Your task to perform on an android device: Toggle the flashlight Image 0: 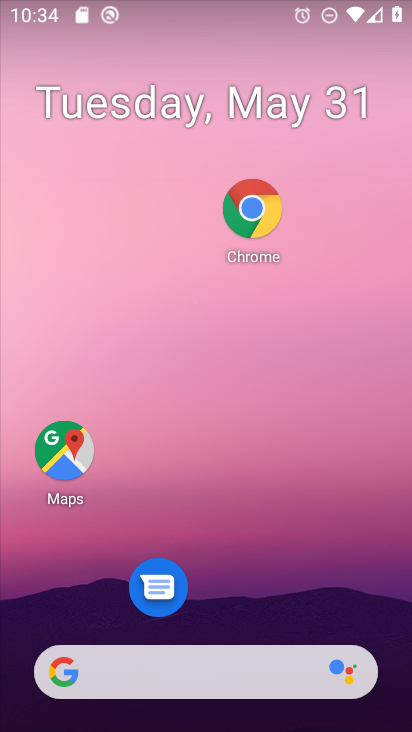
Step 0: press home button
Your task to perform on an android device: Toggle the flashlight Image 1: 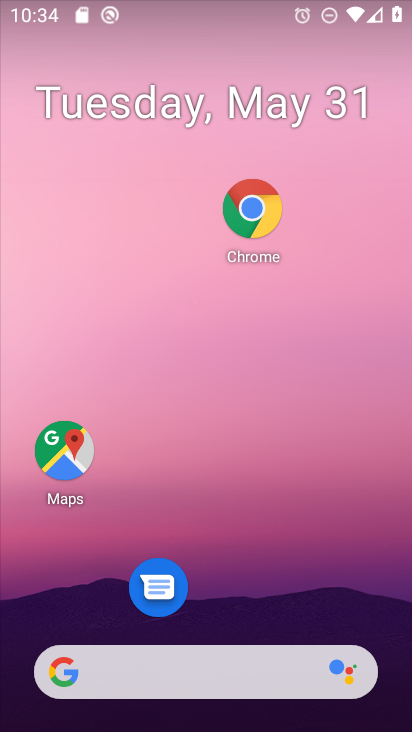
Step 1: drag from (222, 615) to (260, 28)
Your task to perform on an android device: Toggle the flashlight Image 2: 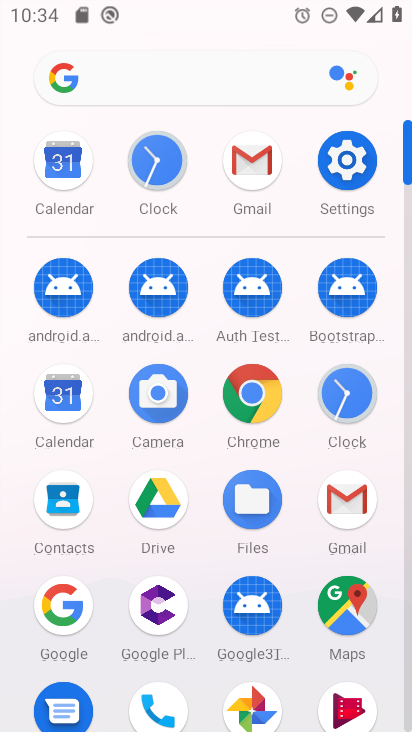
Step 2: click (347, 158)
Your task to perform on an android device: Toggle the flashlight Image 3: 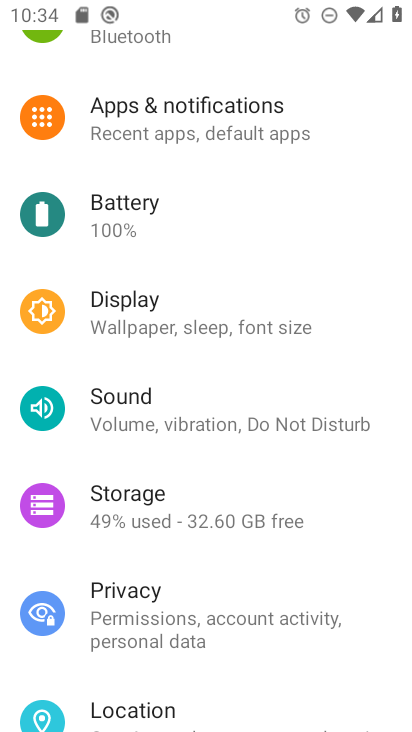
Step 3: drag from (167, 103) to (166, 544)
Your task to perform on an android device: Toggle the flashlight Image 4: 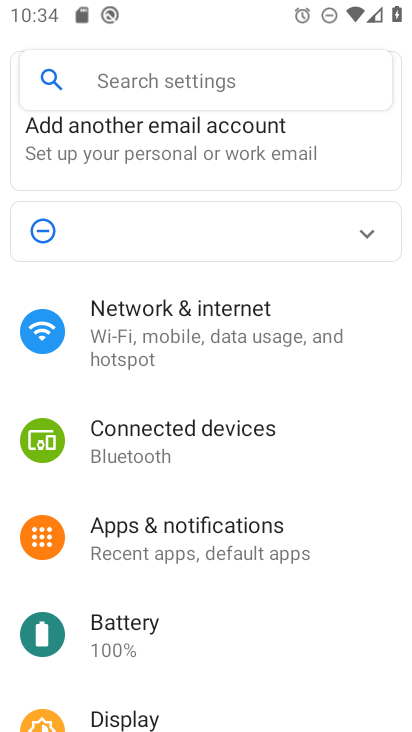
Step 4: click (163, 75)
Your task to perform on an android device: Toggle the flashlight Image 5: 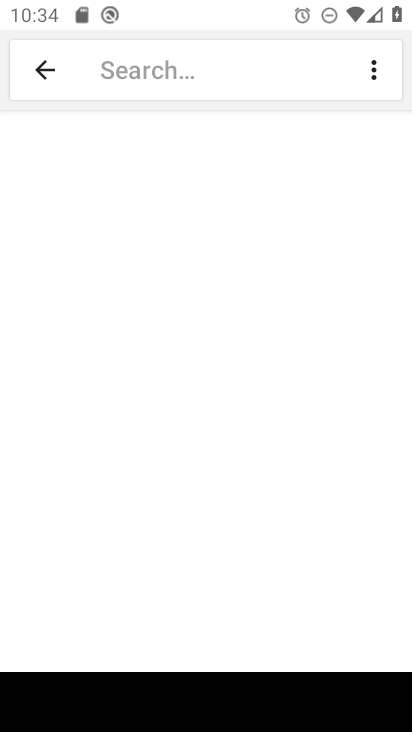
Step 5: type "flashlight"
Your task to perform on an android device: Toggle the flashlight Image 6: 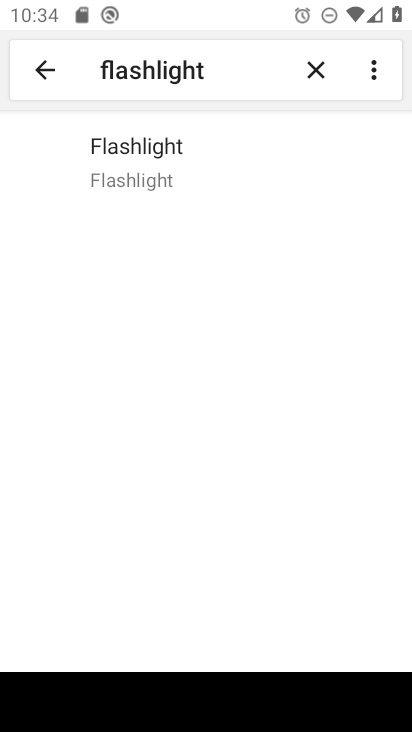
Step 6: click (174, 162)
Your task to perform on an android device: Toggle the flashlight Image 7: 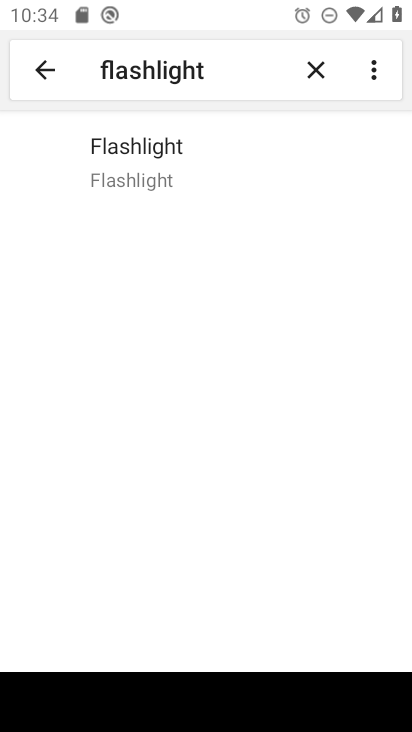
Step 7: click (185, 167)
Your task to perform on an android device: Toggle the flashlight Image 8: 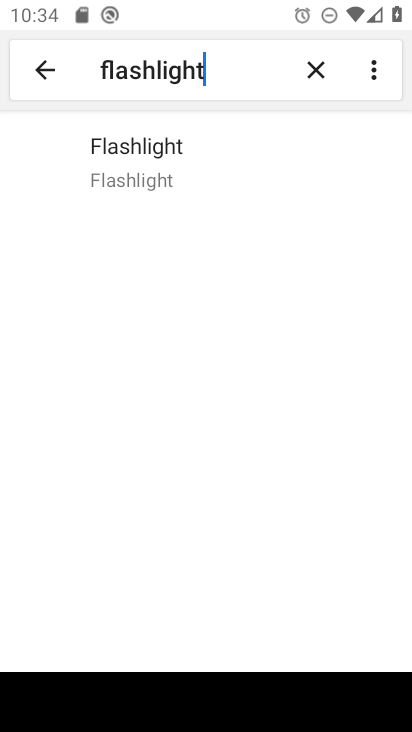
Step 8: click (181, 165)
Your task to perform on an android device: Toggle the flashlight Image 9: 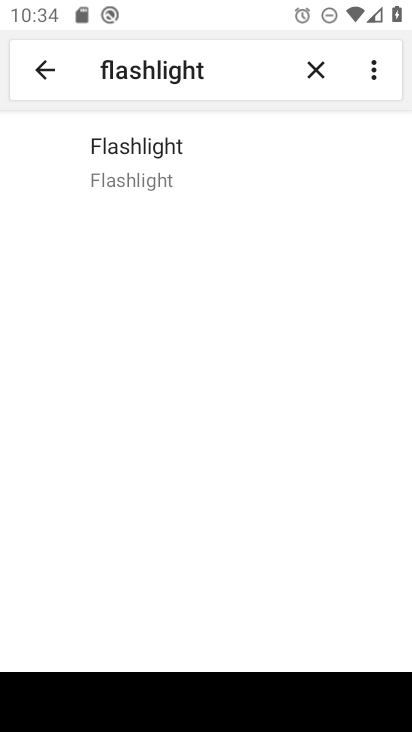
Step 9: task complete